Your task to perform on an android device: Open Youtube and go to the subscriptions tab Image 0: 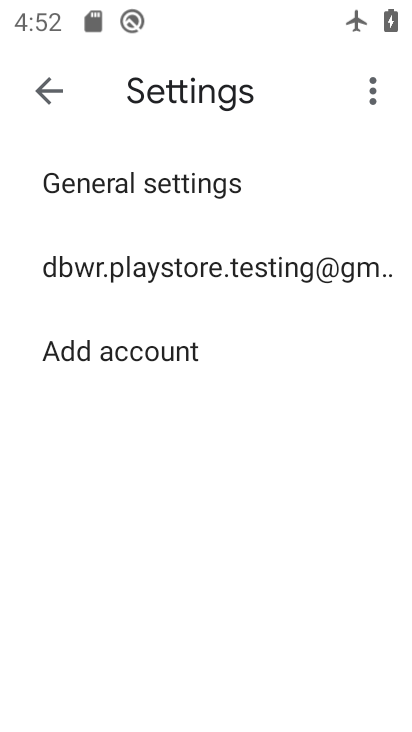
Step 0: press home button
Your task to perform on an android device: Open Youtube and go to the subscriptions tab Image 1: 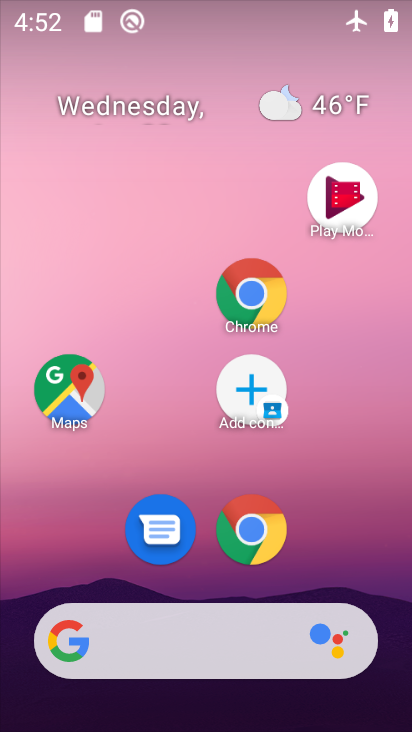
Step 1: drag from (365, 525) to (383, 55)
Your task to perform on an android device: Open Youtube and go to the subscriptions tab Image 2: 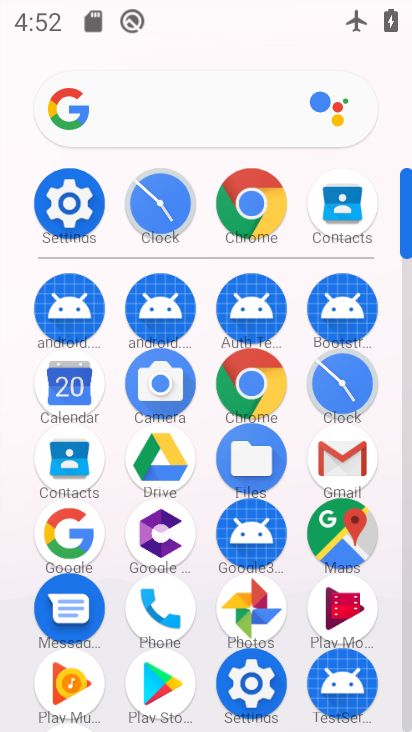
Step 2: drag from (393, 690) to (398, 239)
Your task to perform on an android device: Open Youtube and go to the subscriptions tab Image 3: 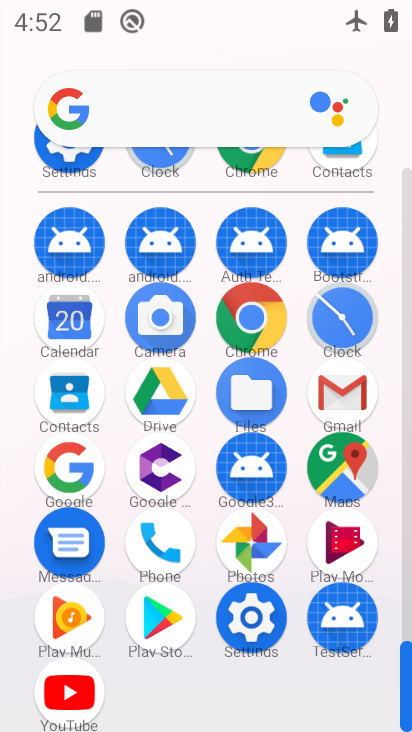
Step 3: click (70, 690)
Your task to perform on an android device: Open Youtube and go to the subscriptions tab Image 4: 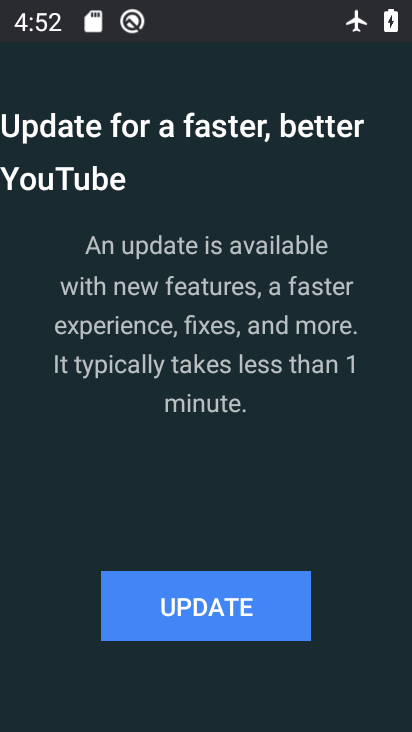
Step 4: click (282, 623)
Your task to perform on an android device: Open Youtube and go to the subscriptions tab Image 5: 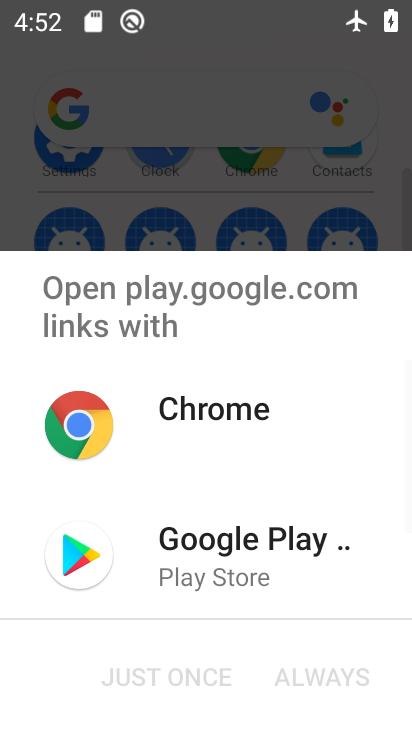
Step 5: click (253, 586)
Your task to perform on an android device: Open Youtube and go to the subscriptions tab Image 6: 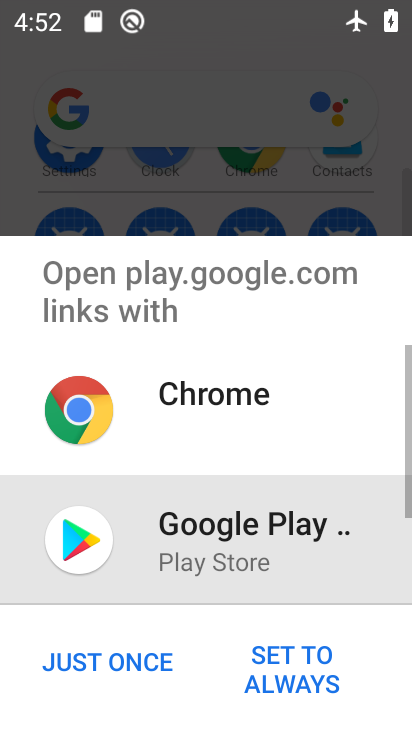
Step 6: click (143, 670)
Your task to perform on an android device: Open Youtube and go to the subscriptions tab Image 7: 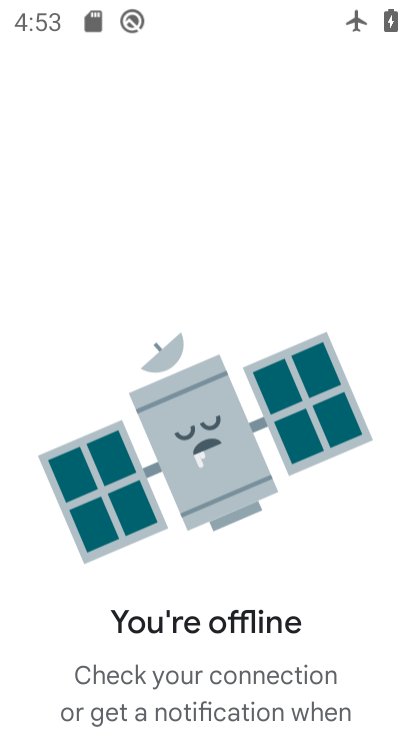
Step 7: task complete